Your task to perform on an android device: open app "Contacts" (install if not already installed) Image 0: 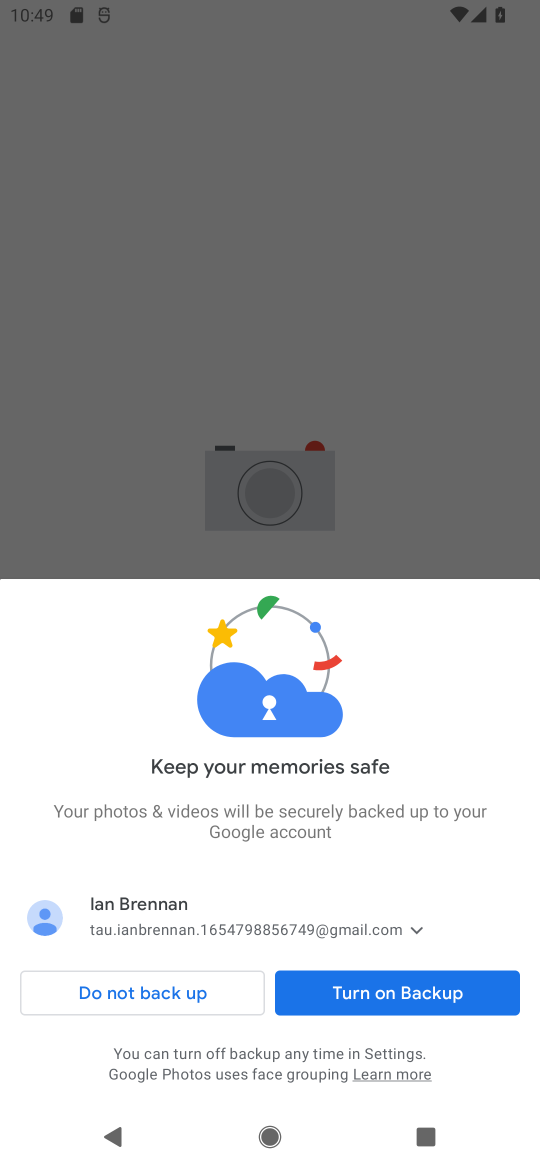
Step 0: press home button
Your task to perform on an android device: open app "Contacts" (install if not already installed) Image 1: 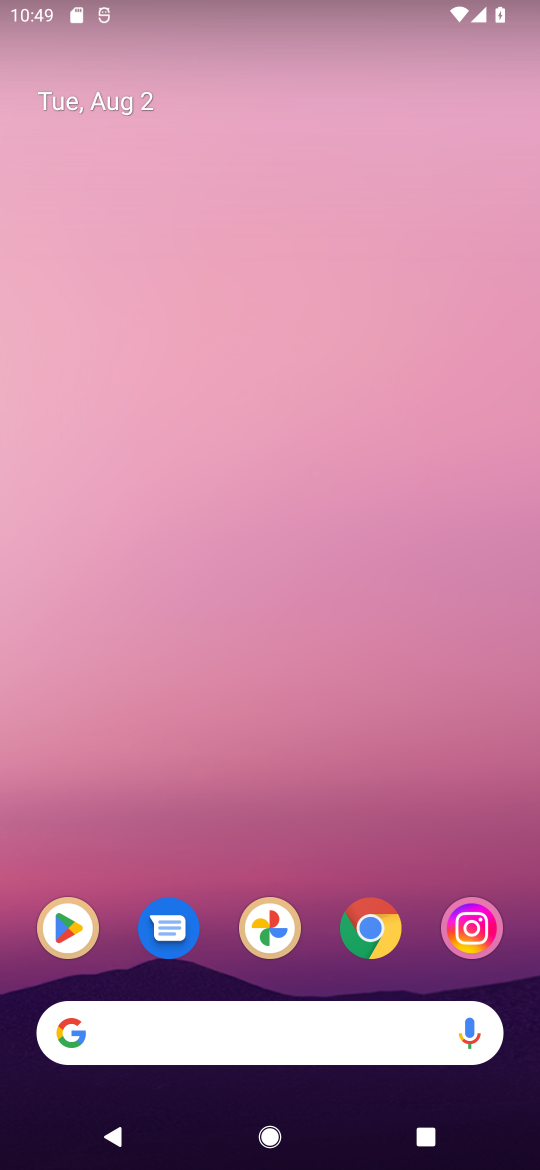
Step 1: click (45, 933)
Your task to perform on an android device: open app "Contacts" (install if not already installed) Image 2: 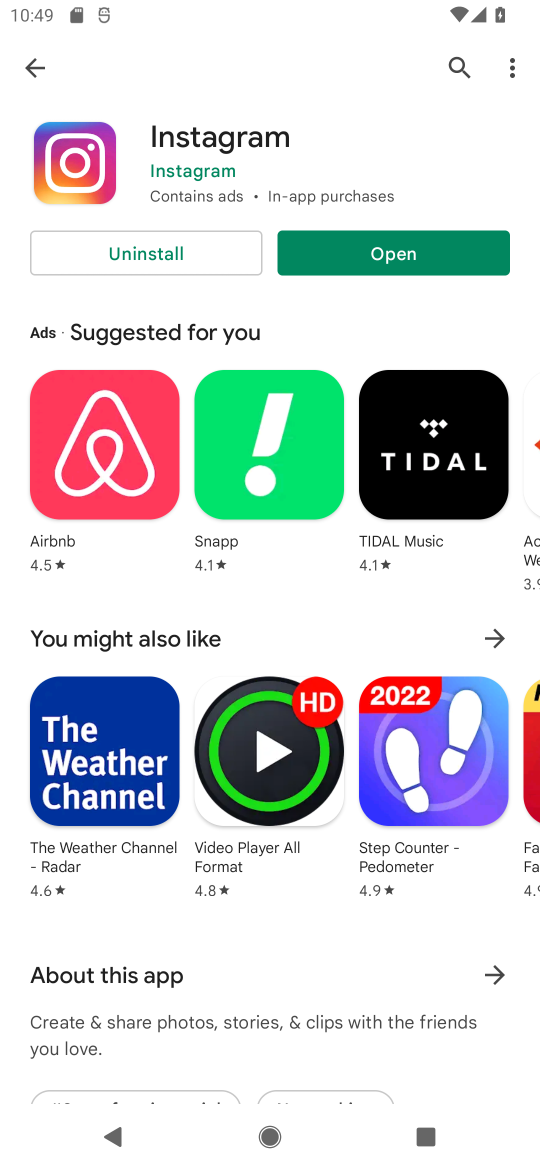
Step 2: click (459, 70)
Your task to perform on an android device: open app "Contacts" (install if not already installed) Image 3: 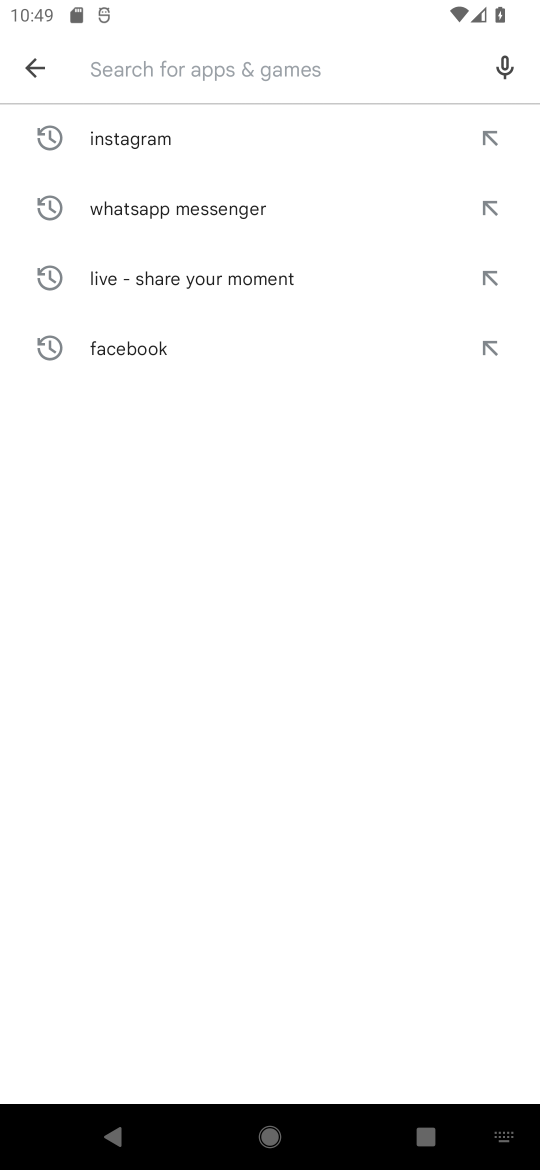
Step 3: type "contacts"
Your task to perform on an android device: open app "Contacts" (install if not already installed) Image 4: 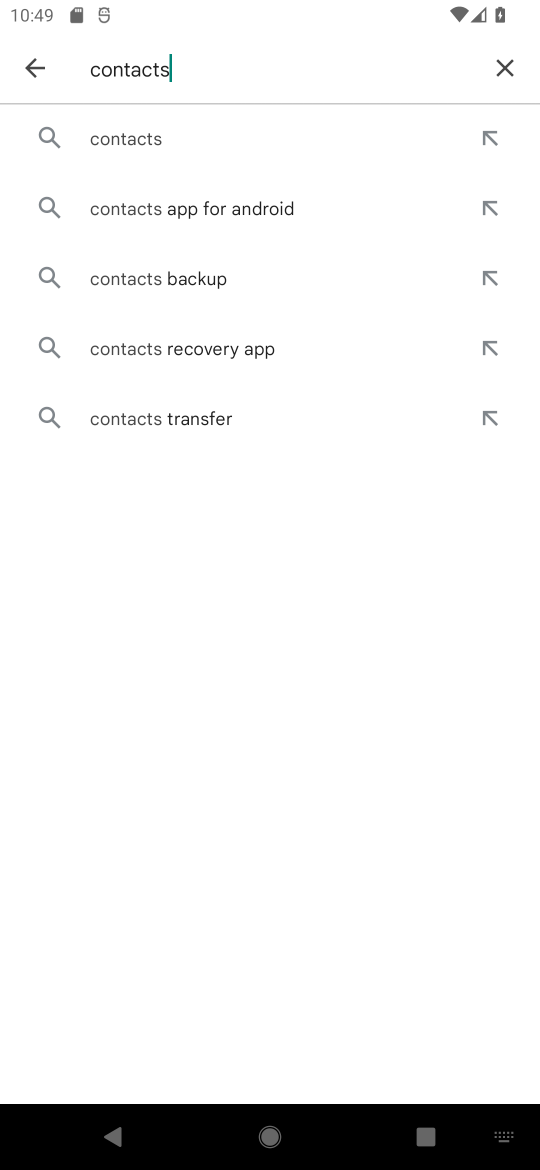
Step 4: click (167, 126)
Your task to perform on an android device: open app "Contacts" (install if not already installed) Image 5: 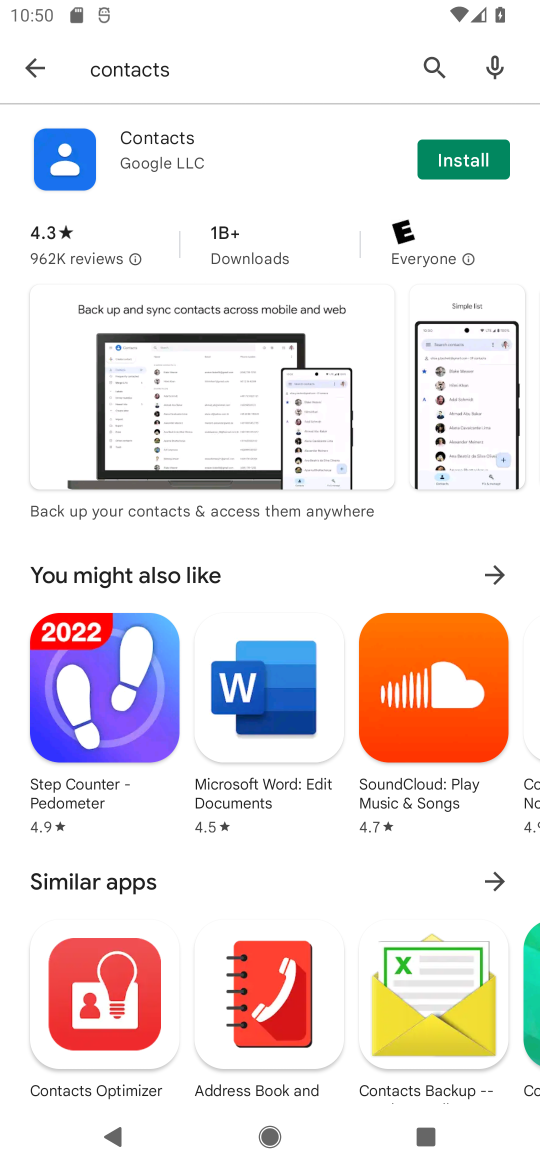
Step 5: click (156, 134)
Your task to perform on an android device: open app "Contacts" (install if not already installed) Image 6: 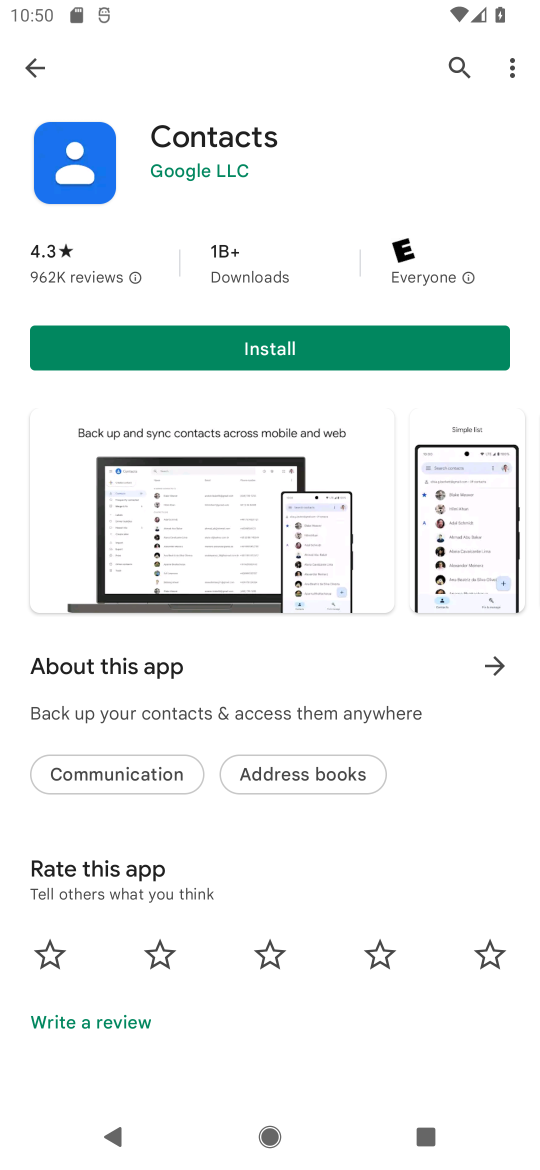
Step 6: click (287, 351)
Your task to perform on an android device: open app "Contacts" (install if not already installed) Image 7: 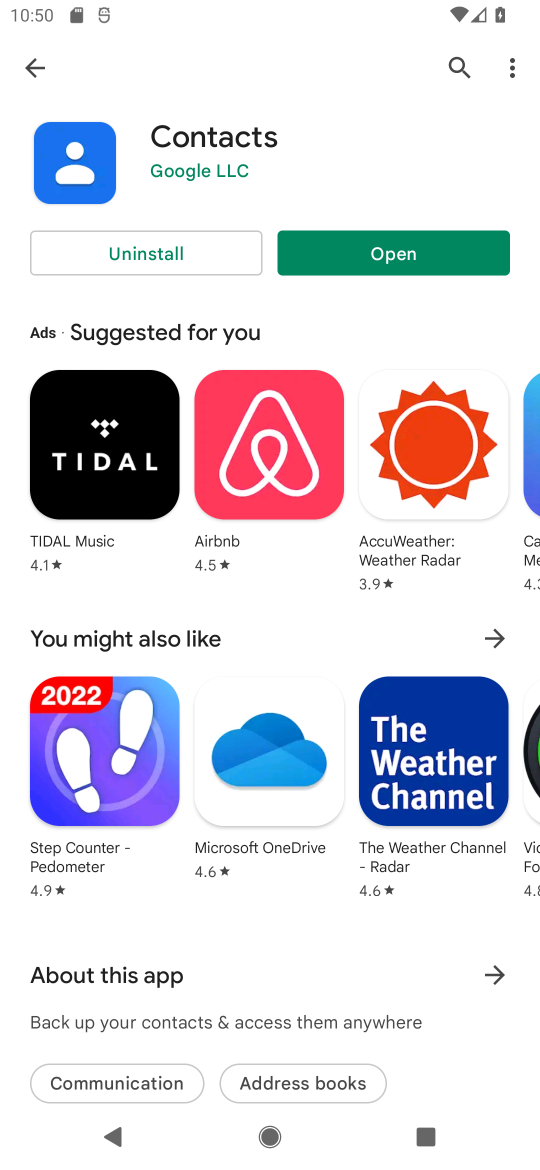
Step 7: click (429, 263)
Your task to perform on an android device: open app "Contacts" (install if not already installed) Image 8: 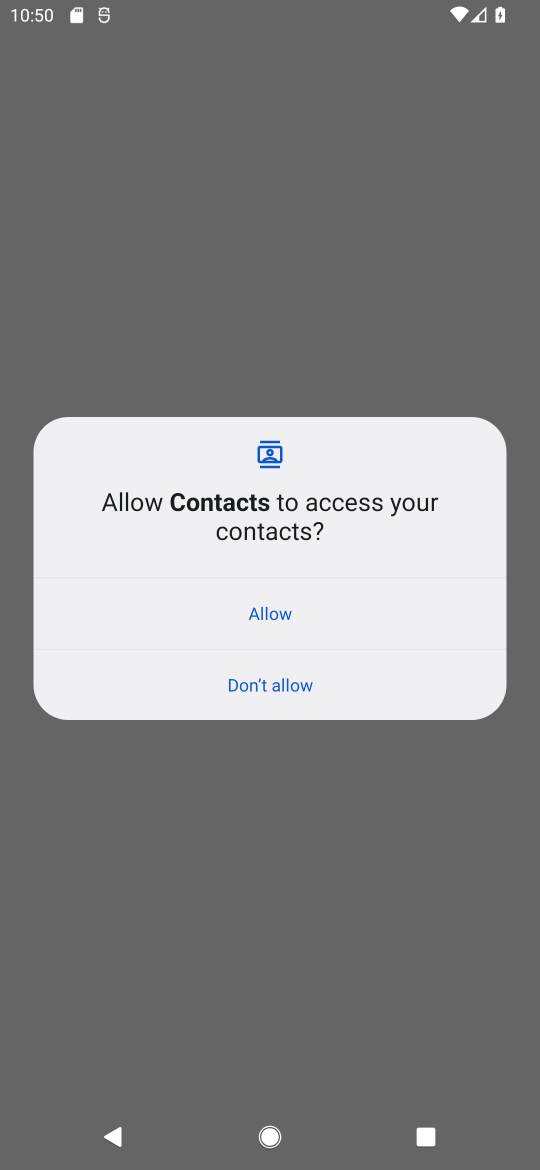
Step 8: task complete